Your task to perform on an android device: What's on my calendar tomorrow? Image 0: 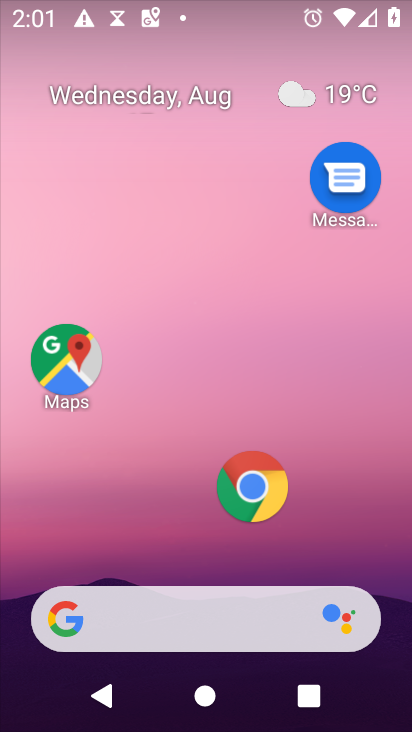
Step 0: drag from (227, 467) to (235, 7)
Your task to perform on an android device: What's on my calendar tomorrow? Image 1: 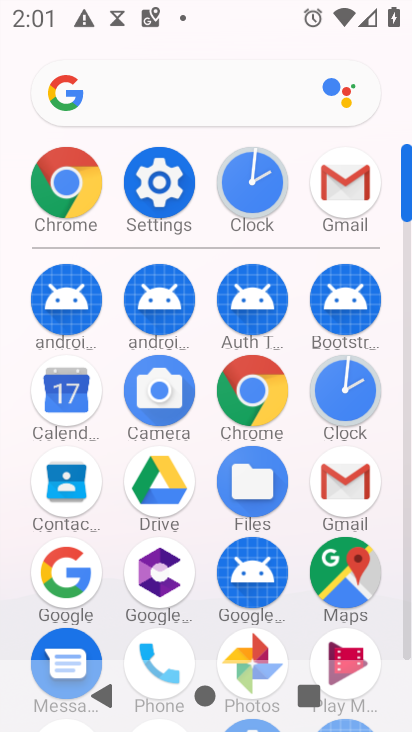
Step 1: click (66, 399)
Your task to perform on an android device: What's on my calendar tomorrow? Image 2: 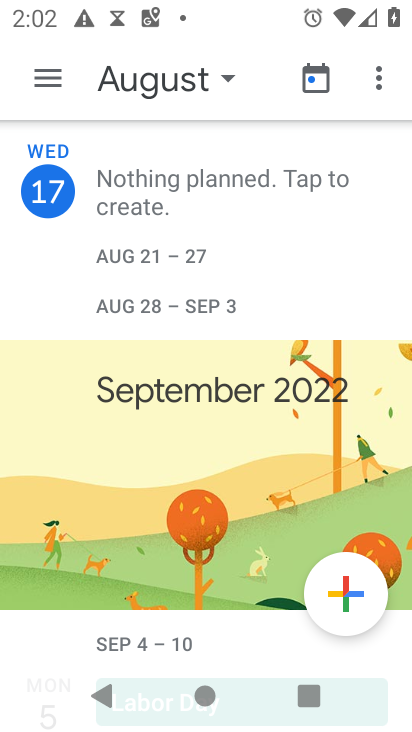
Step 2: task complete